Your task to perform on an android device: Go to Google Image 0: 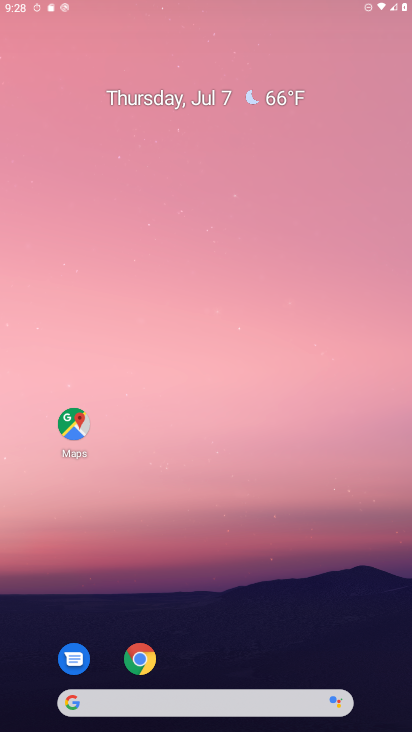
Step 0: drag from (379, 694) to (298, 0)
Your task to perform on an android device: Go to Google Image 1: 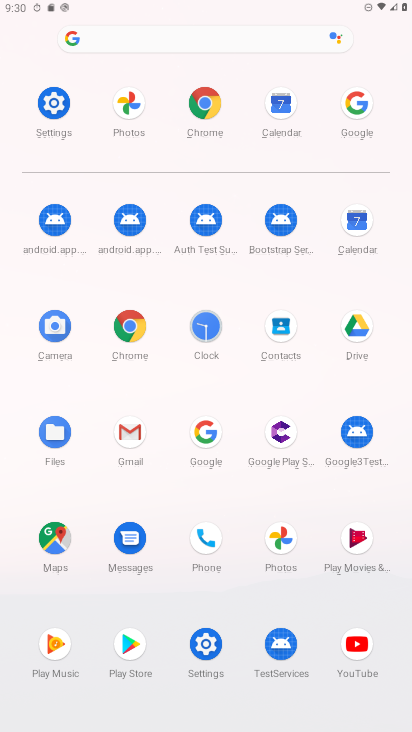
Step 1: click (211, 430)
Your task to perform on an android device: Go to Google Image 2: 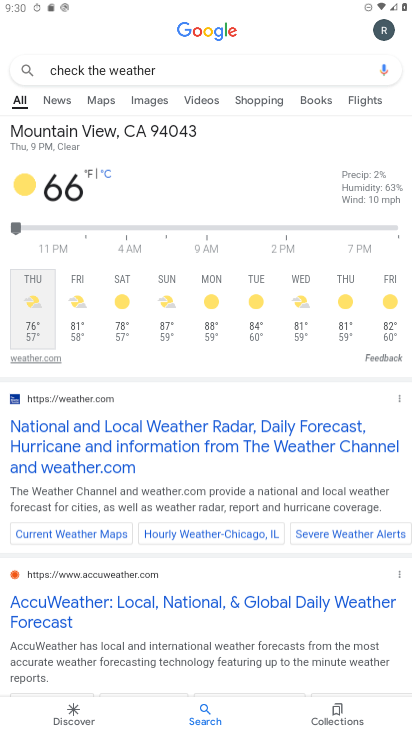
Step 2: task complete